Your task to perform on an android device: install app "Facebook Messenger" Image 0: 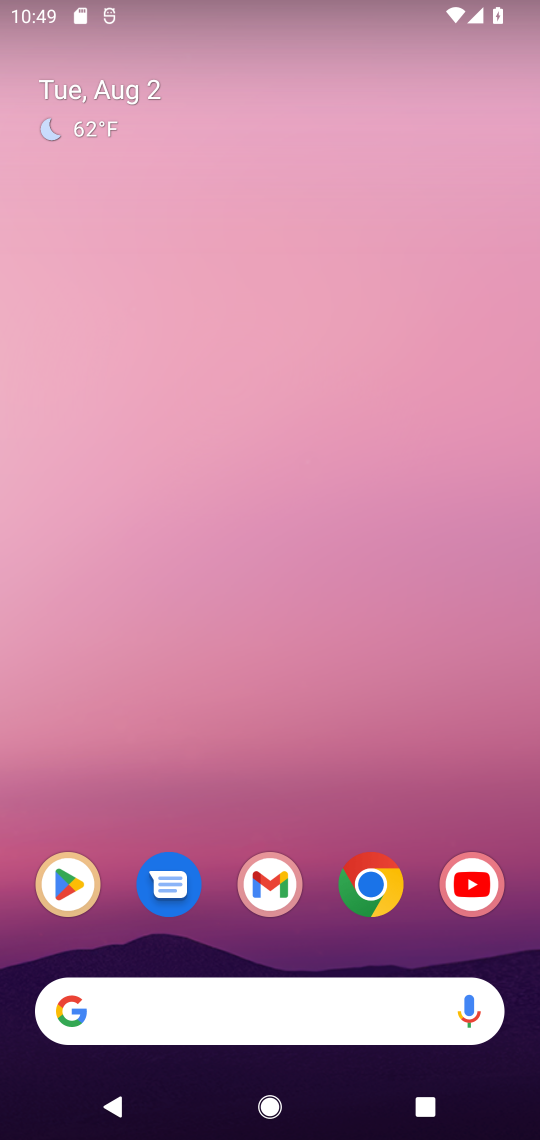
Step 0: click (57, 897)
Your task to perform on an android device: install app "Facebook Messenger" Image 1: 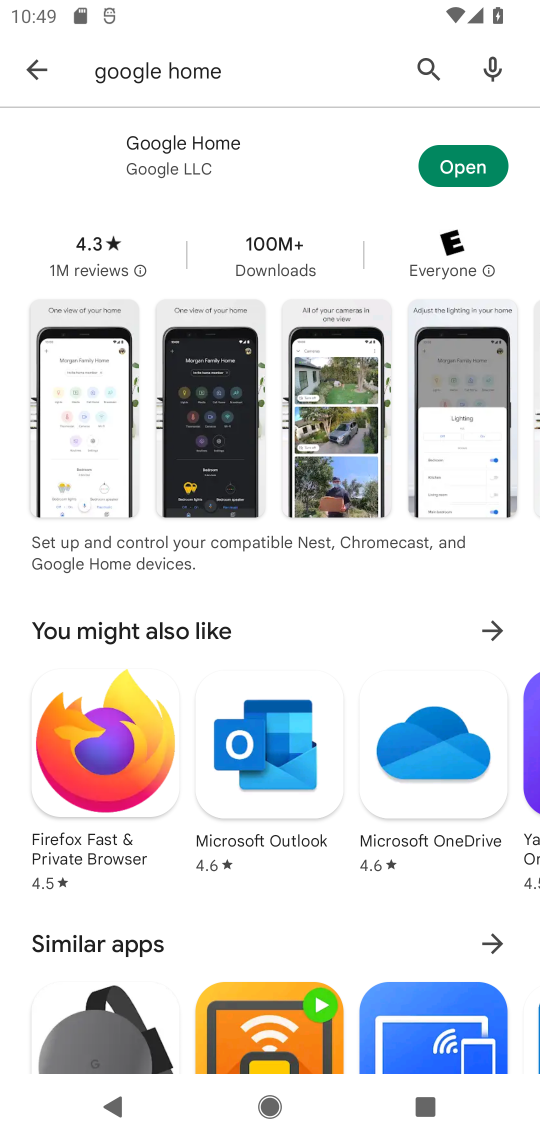
Step 1: click (210, 51)
Your task to perform on an android device: install app "Facebook Messenger" Image 2: 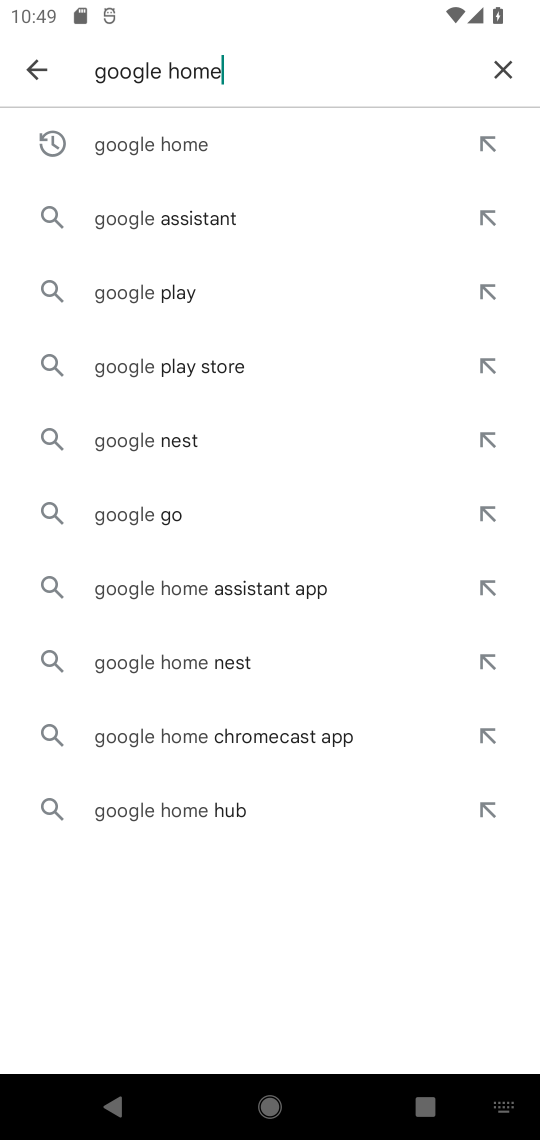
Step 2: click (502, 80)
Your task to perform on an android device: install app "Facebook Messenger" Image 3: 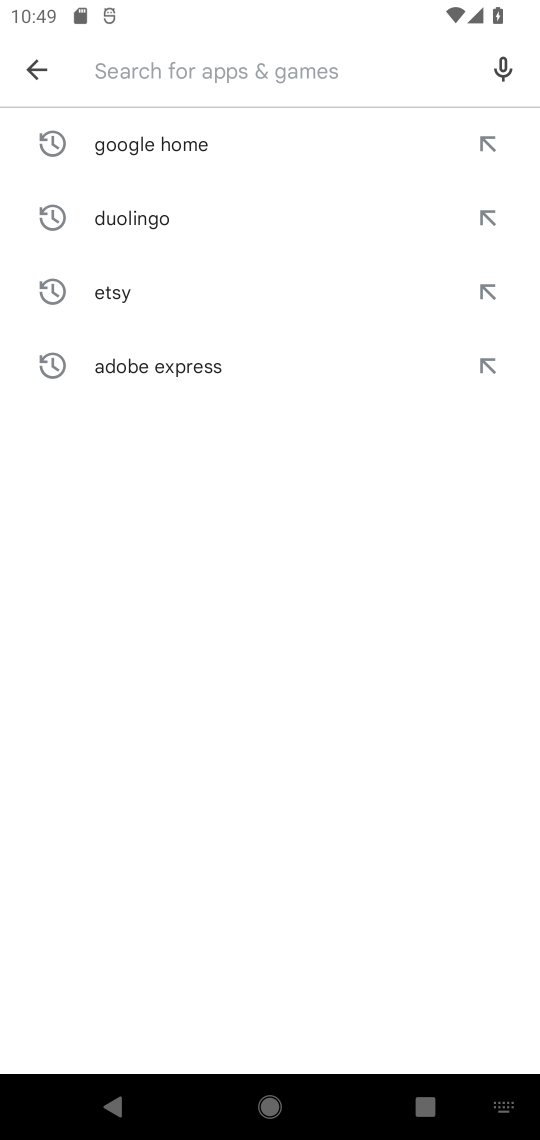
Step 3: type "facebook messenger"
Your task to perform on an android device: install app "Facebook Messenger" Image 4: 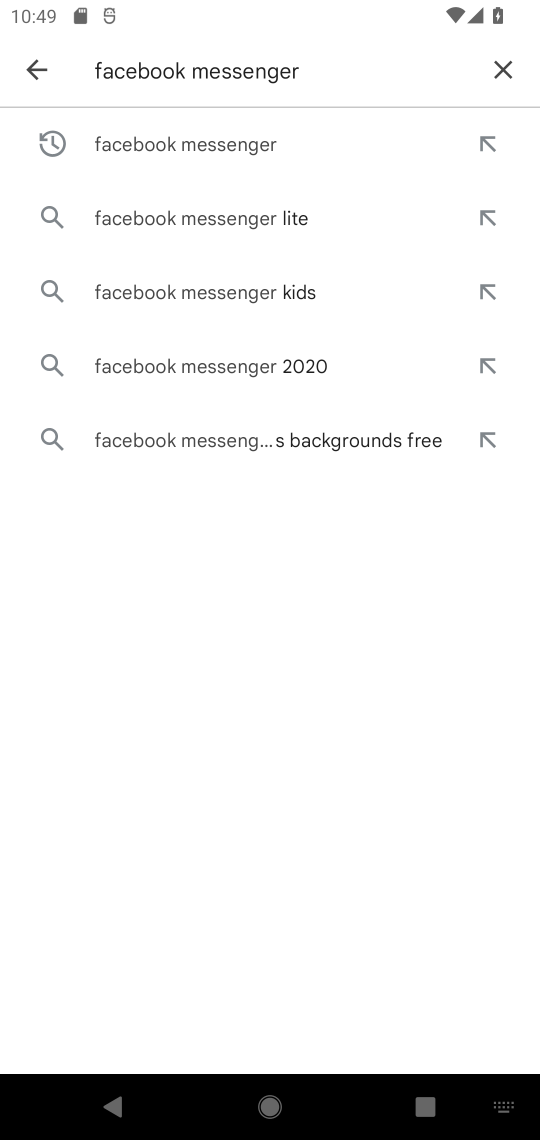
Step 4: click (144, 151)
Your task to perform on an android device: install app "Facebook Messenger" Image 5: 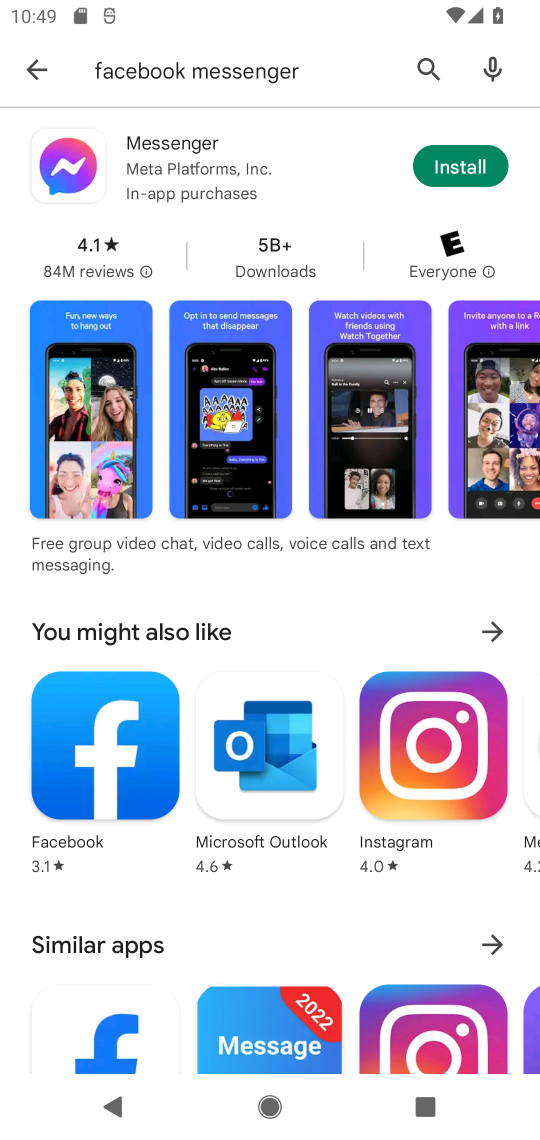
Step 5: click (484, 175)
Your task to perform on an android device: install app "Facebook Messenger" Image 6: 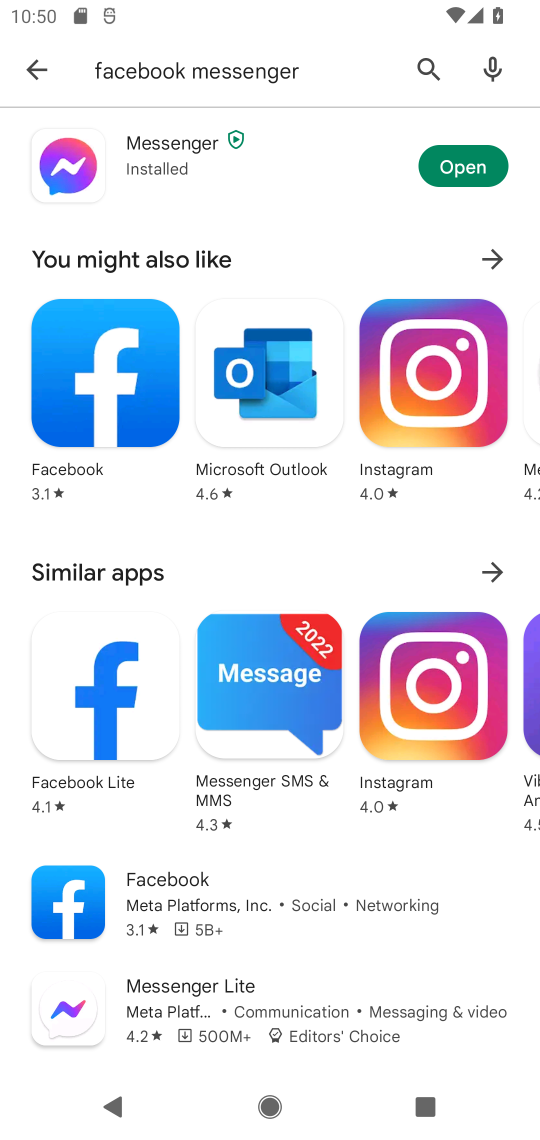
Step 6: task complete